Your task to perform on an android device: See recent photos Image 0: 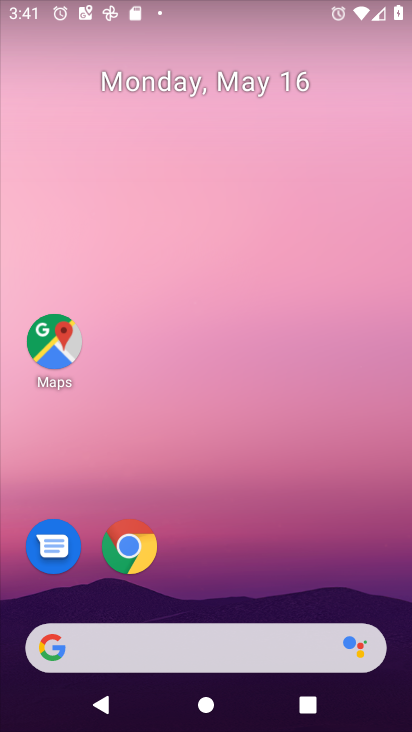
Step 0: drag from (361, 578) to (372, 104)
Your task to perform on an android device: See recent photos Image 1: 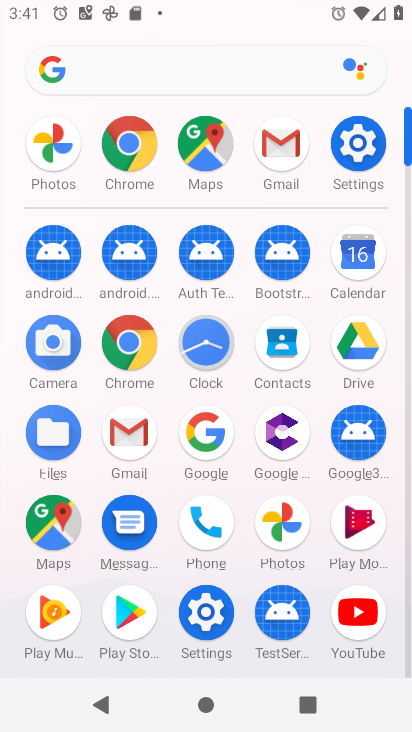
Step 1: click (288, 524)
Your task to perform on an android device: See recent photos Image 2: 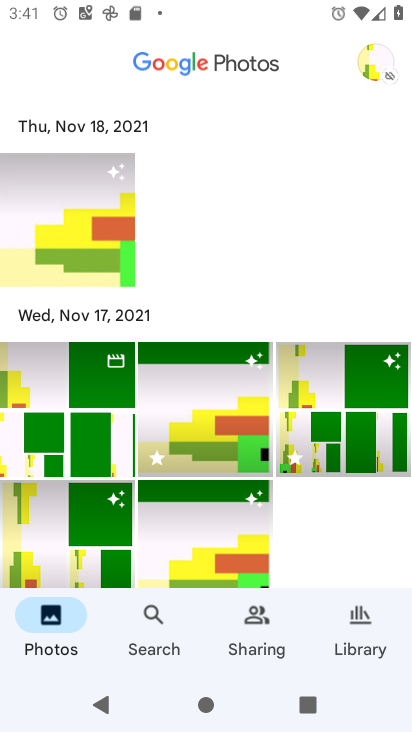
Step 2: click (69, 223)
Your task to perform on an android device: See recent photos Image 3: 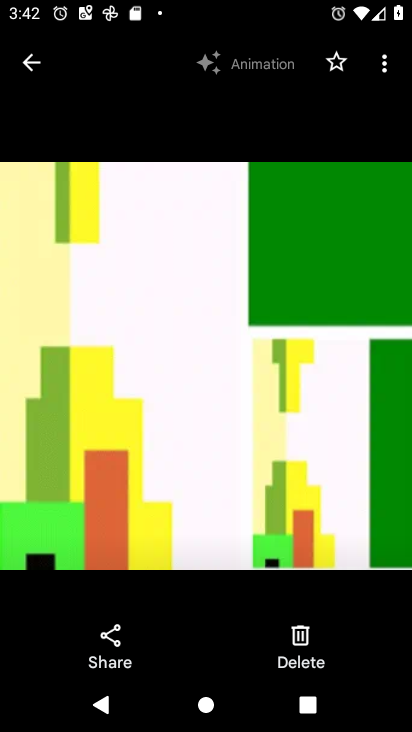
Step 3: task complete